Your task to perform on an android device: remove spam from my inbox in the gmail app Image 0: 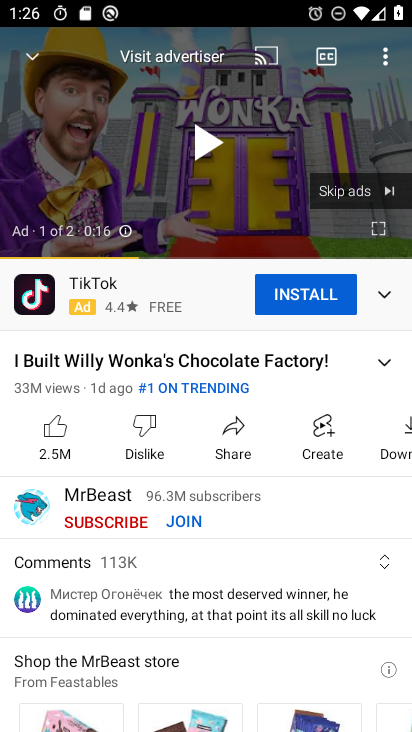
Step 0: press home button
Your task to perform on an android device: remove spam from my inbox in the gmail app Image 1: 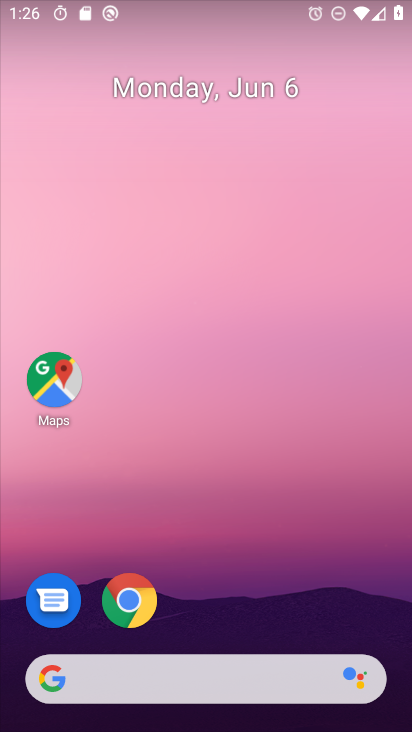
Step 1: drag from (224, 612) to (231, 213)
Your task to perform on an android device: remove spam from my inbox in the gmail app Image 2: 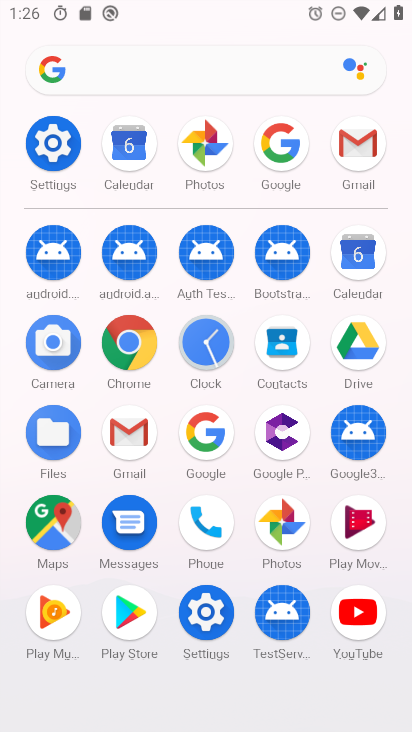
Step 2: click (348, 173)
Your task to perform on an android device: remove spam from my inbox in the gmail app Image 3: 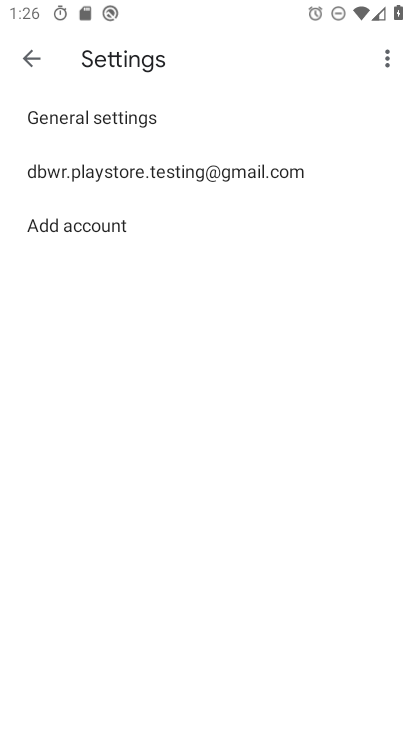
Step 3: click (21, 55)
Your task to perform on an android device: remove spam from my inbox in the gmail app Image 4: 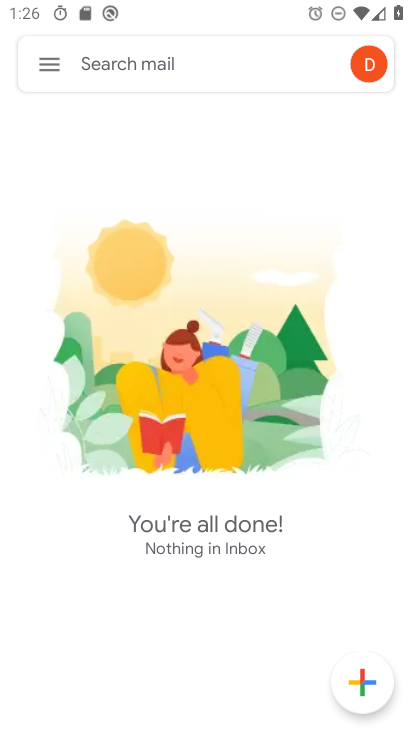
Step 4: click (31, 57)
Your task to perform on an android device: remove spam from my inbox in the gmail app Image 5: 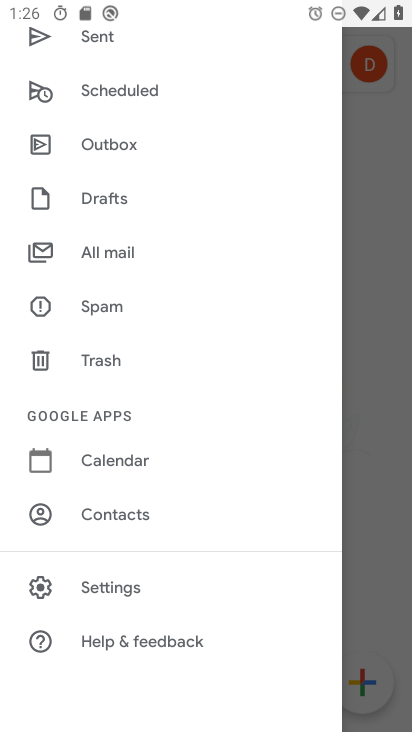
Step 5: click (124, 301)
Your task to perform on an android device: remove spam from my inbox in the gmail app Image 6: 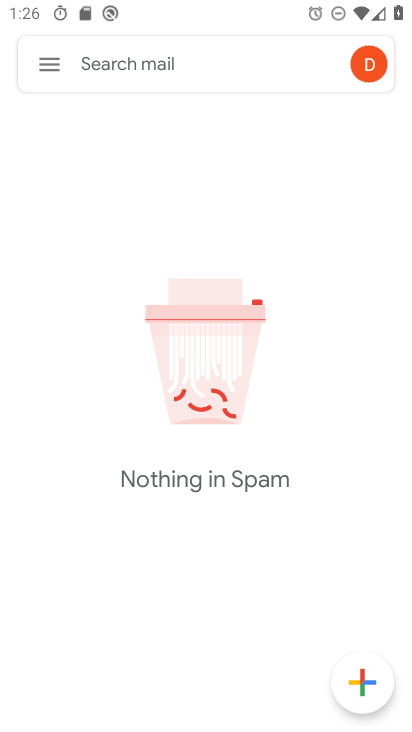
Step 6: task complete